Your task to perform on an android device: Go to wifi settings Image 0: 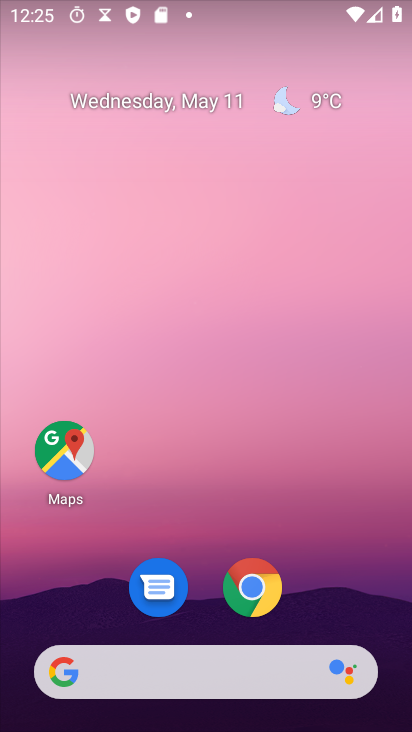
Step 0: drag from (362, 634) to (201, 122)
Your task to perform on an android device: Go to wifi settings Image 1: 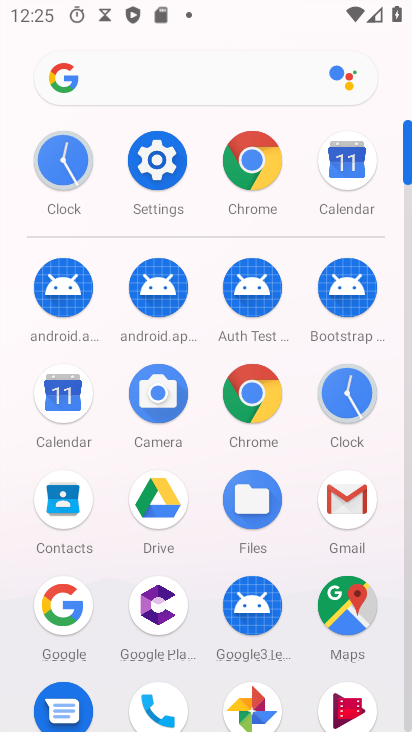
Step 1: click (164, 146)
Your task to perform on an android device: Go to wifi settings Image 2: 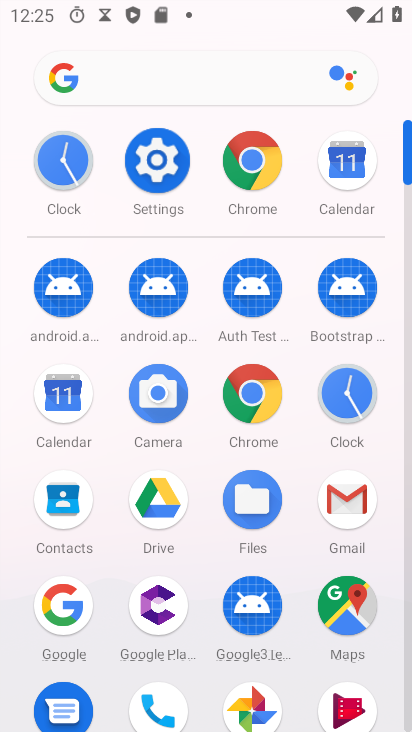
Step 2: click (163, 151)
Your task to perform on an android device: Go to wifi settings Image 3: 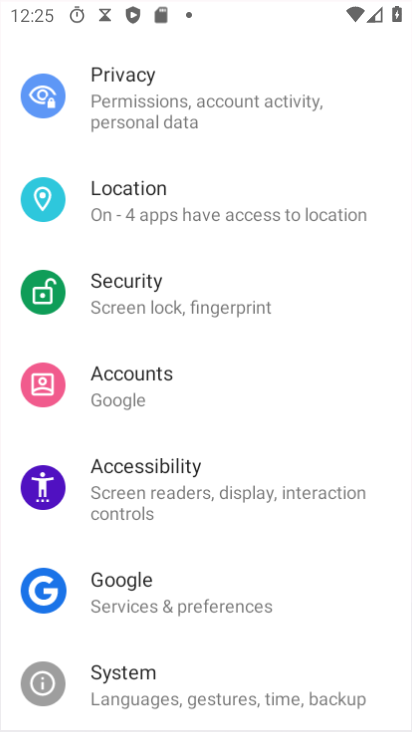
Step 3: click (161, 156)
Your task to perform on an android device: Go to wifi settings Image 4: 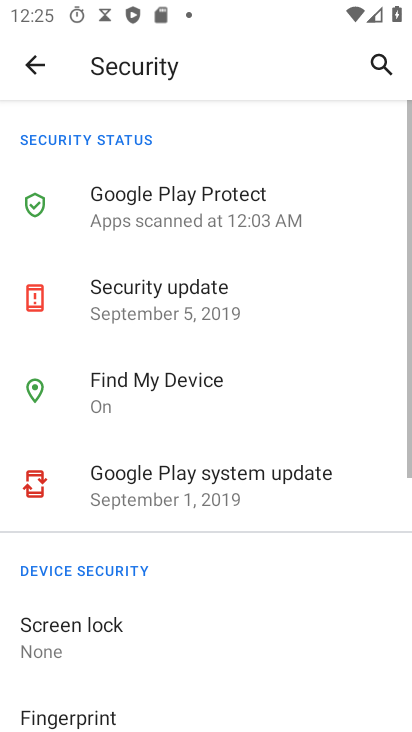
Step 4: click (21, 69)
Your task to perform on an android device: Go to wifi settings Image 5: 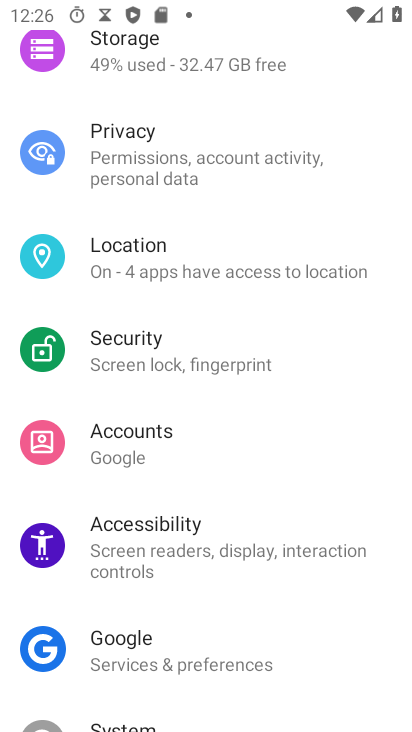
Step 5: drag from (153, 184) to (180, 514)
Your task to perform on an android device: Go to wifi settings Image 6: 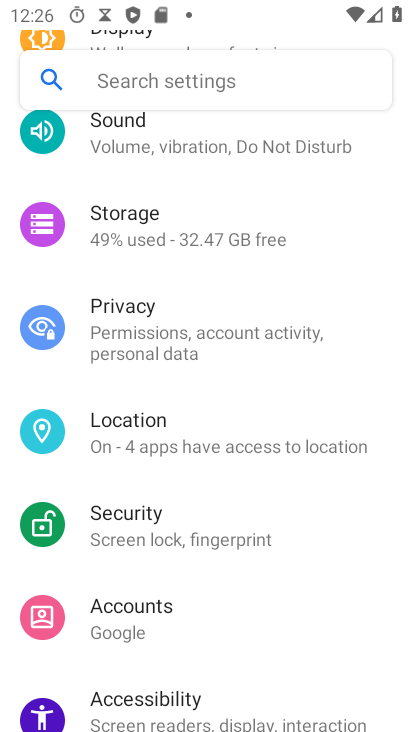
Step 6: drag from (198, 199) to (238, 493)
Your task to perform on an android device: Go to wifi settings Image 7: 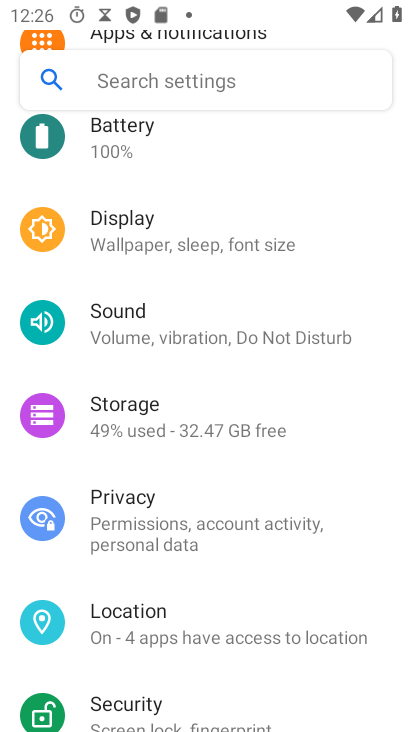
Step 7: drag from (182, 183) to (256, 584)
Your task to perform on an android device: Go to wifi settings Image 8: 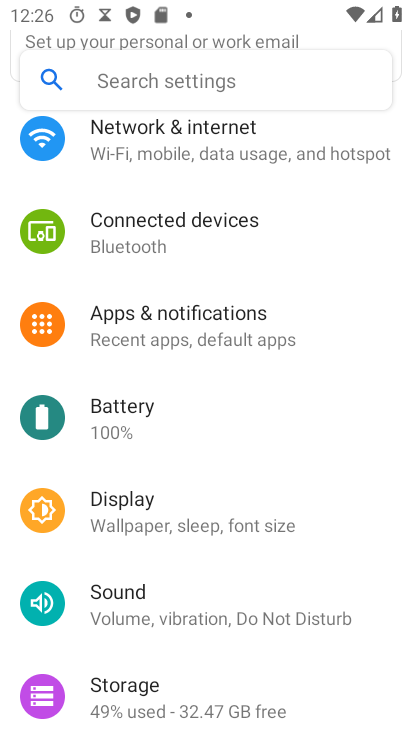
Step 8: drag from (177, 150) to (216, 608)
Your task to perform on an android device: Go to wifi settings Image 9: 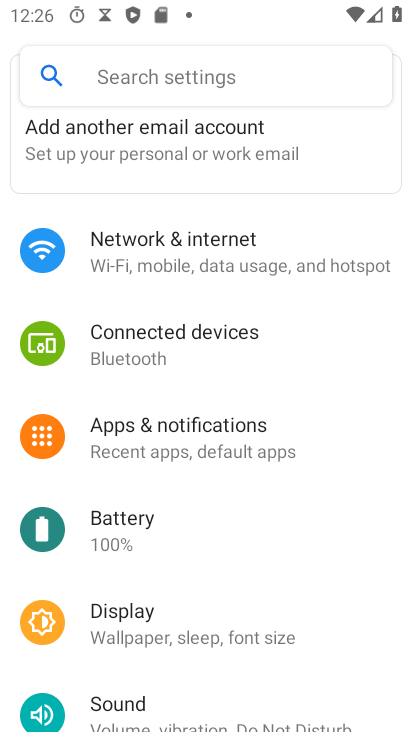
Step 9: drag from (178, 289) to (256, 569)
Your task to perform on an android device: Go to wifi settings Image 10: 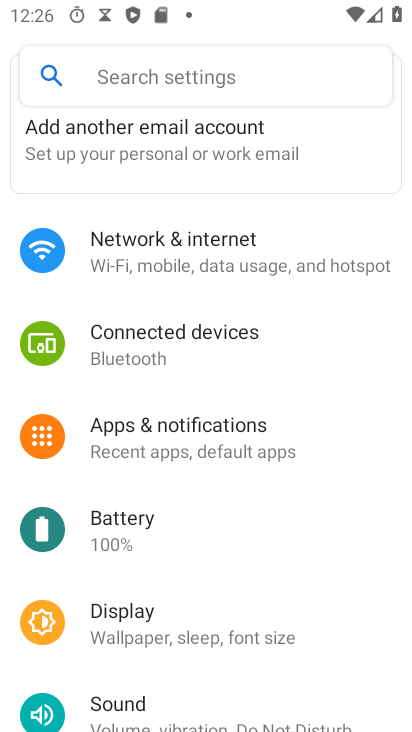
Step 10: click (168, 239)
Your task to perform on an android device: Go to wifi settings Image 11: 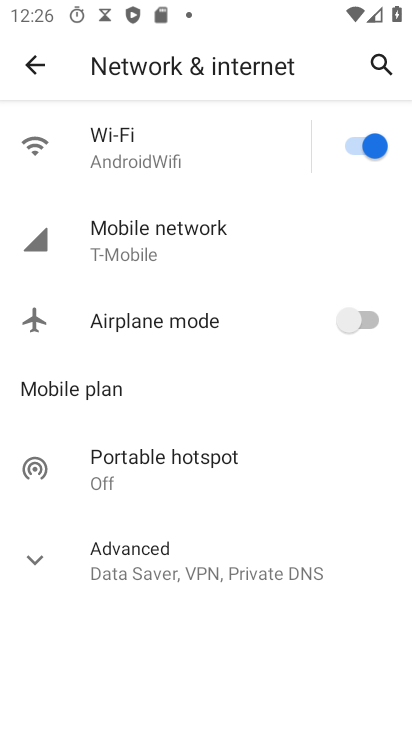
Step 11: task complete